Your task to perform on an android device: Go to notification settings Image 0: 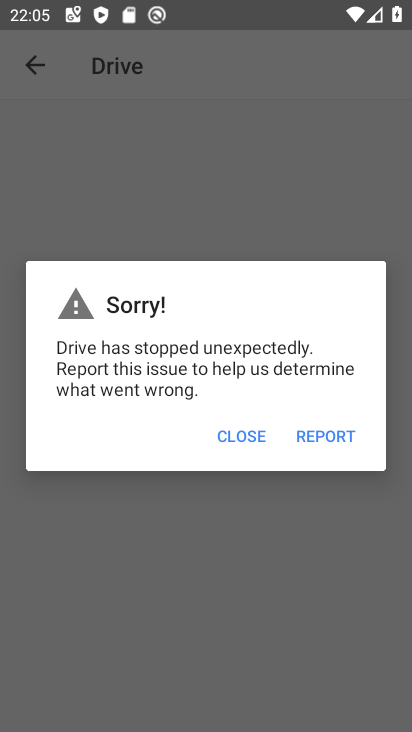
Step 0: press home button
Your task to perform on an android device: Go to notification settings Image 1: 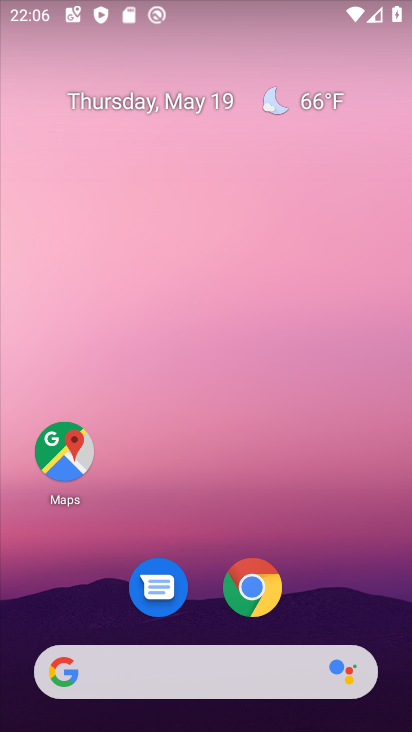
Step 1: drag from (286, 698) to (256, 237)
Your task to perform on an android device: Go to notification settings Image 2: 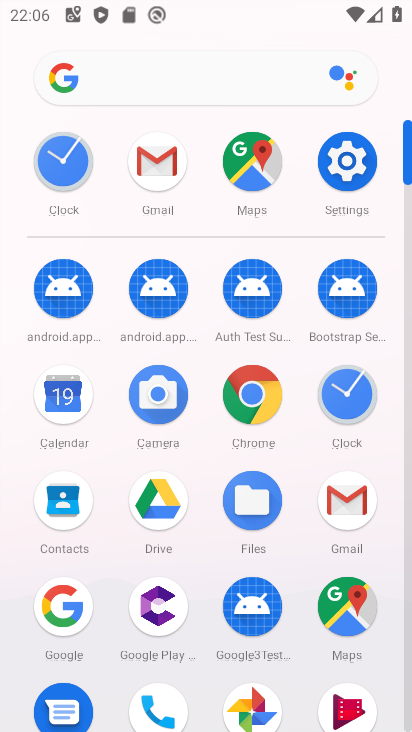
Step 2: click (339, 173)
Your task to perform on an android device: Go to notification settings Image 3: 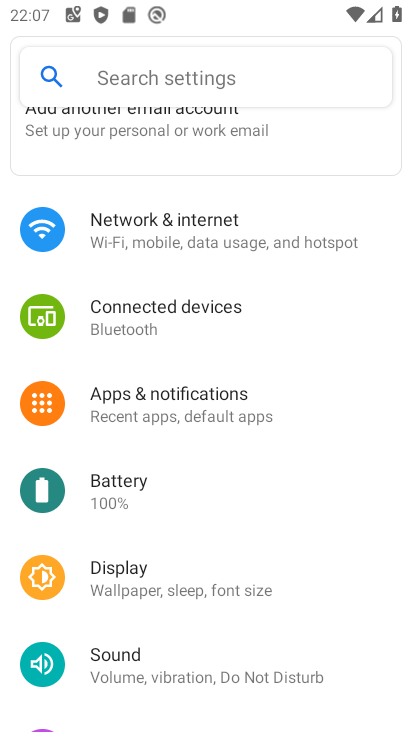
Step 3: click (171, 84)
Your task to perform on an android device: Go to notification settings Image 4: 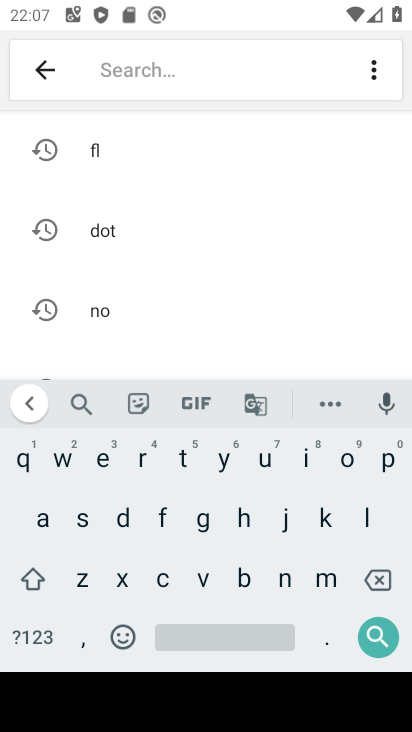
Step 4: click (137, 319)
Your task to perform on an android device: Go to notification settings Image 5: 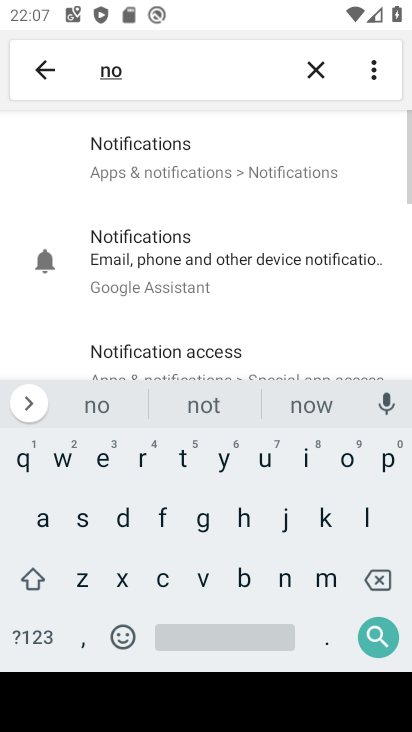
Step 5: click (218, 171)
Your task to perform on an android device: Go to notification settings Image 6: 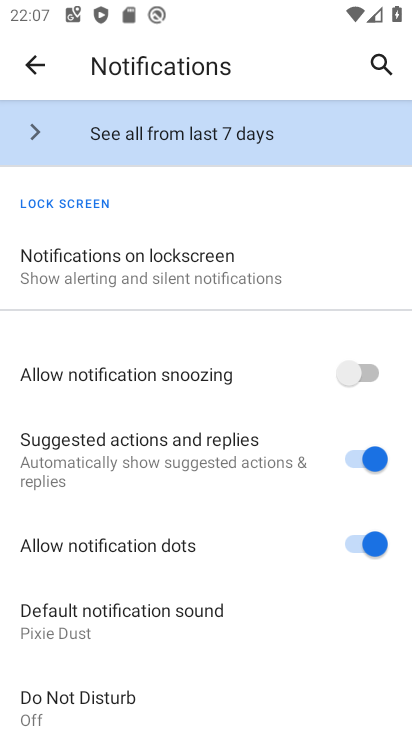
Step 6: click (197, 275)
Your task to perform on an android device: Go to notification settings Image 7: 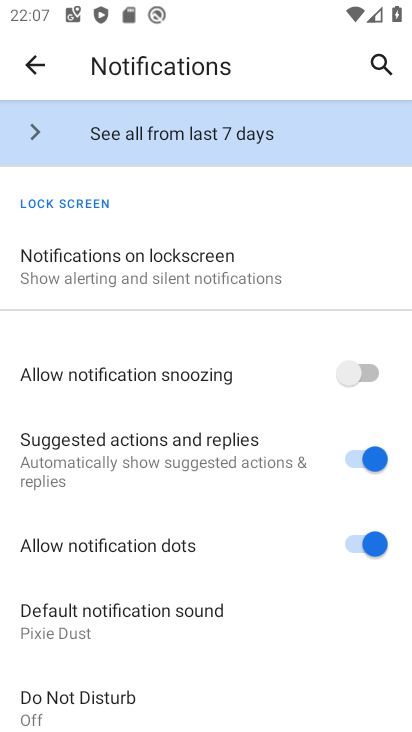
Step 7: click (126, 268)
Your task to perform on an android device: Go to notification settings Image 8: 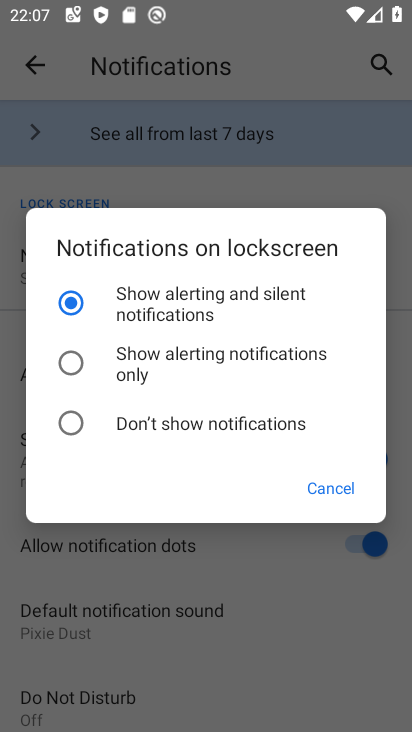
Step 8: task complete